Your task to perform on an android device: change notifications settings Image 0: 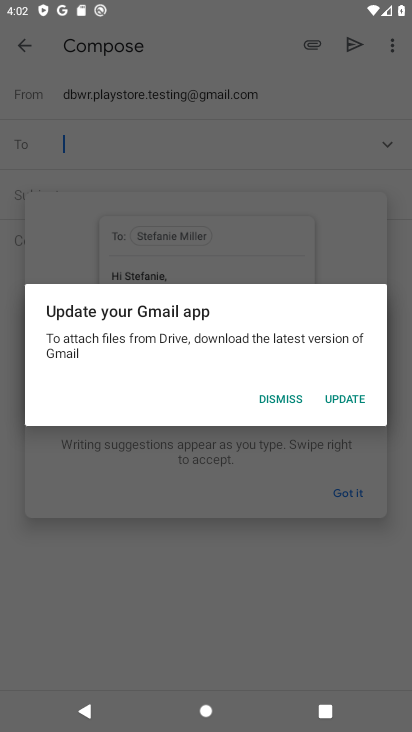
Step 0: press home button
Your task to perform on an android device: change notifications settings Image 1: 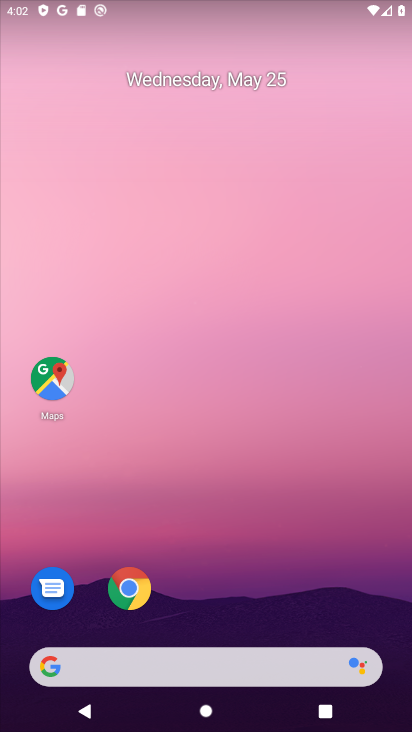
Step 1: drag from (254, 576) to (225, 112)
Your task to perform on an android device: change notifications settings Image 2: 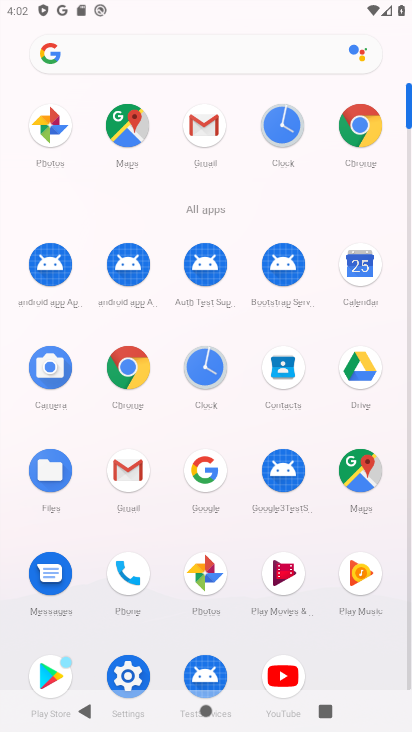
Step 2: click (123, 668)
Your task to perform on an android device: change notifications settings Image 3: 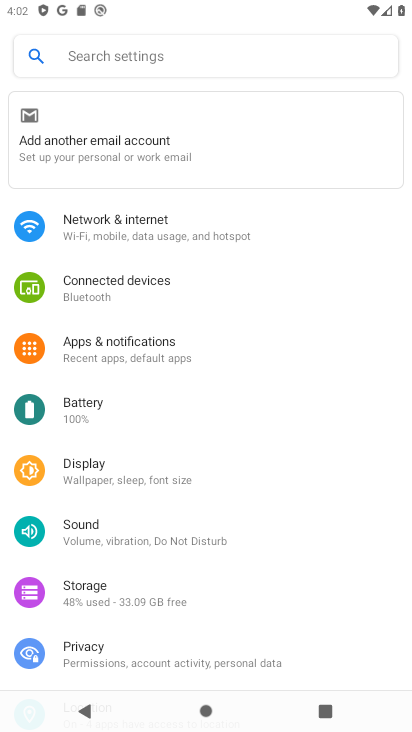
Step 3: click (178, 358)
Your task to perform on an android device: change notifications settings Image 4: 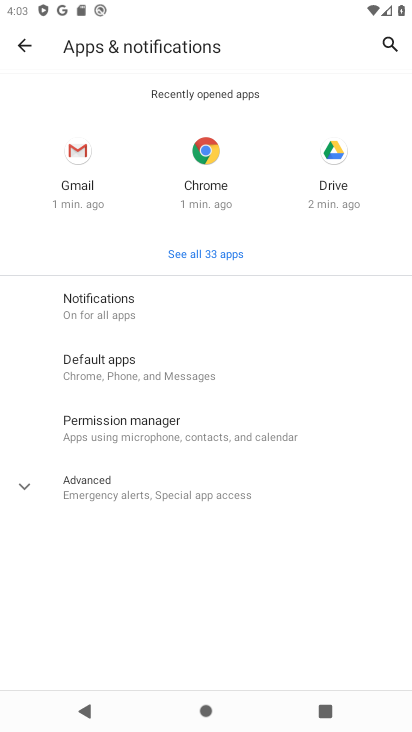
Step 4: click (154, 316)
Your task to perform on an android device: change notifications settings Image 5: 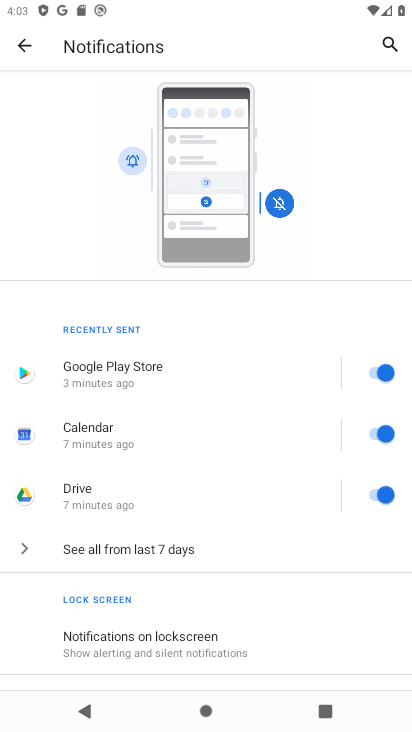
Step 5: drag from (181, 637) to (161, 296)
Your task to perform on an android device: change notifications settings Image 6: 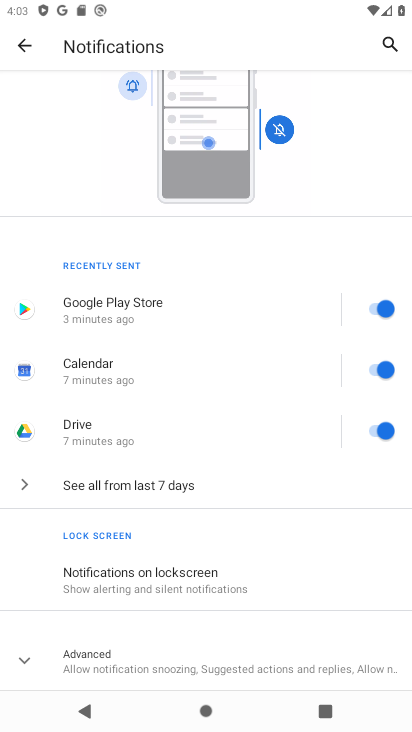
Step 6: click (186, 661)
Your task to perform on an android device: change notifications settings Image 7: 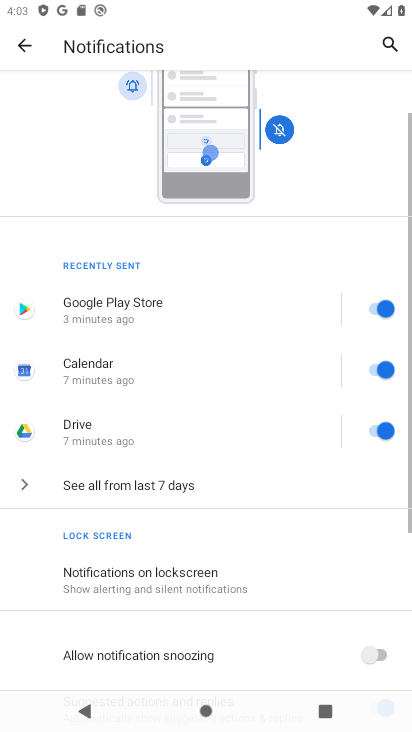
Step 7: drag from (186, 661) to (176, 333)
Your task to perform on an android device: change notifications settings Image 8: 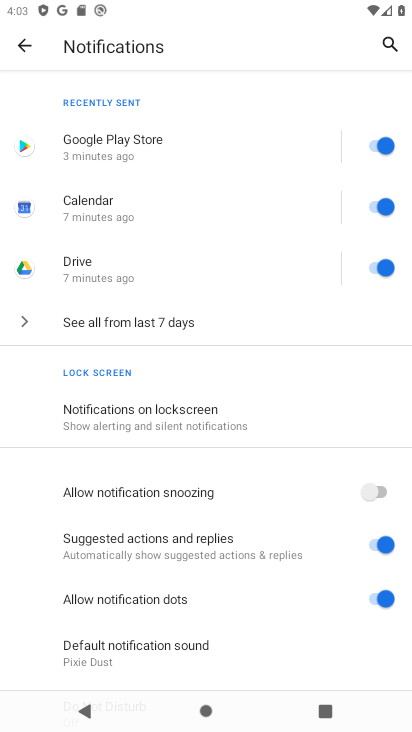
Step 8: click (371, 491)
Your task to perform on an android device: change notifications settings Image 9: 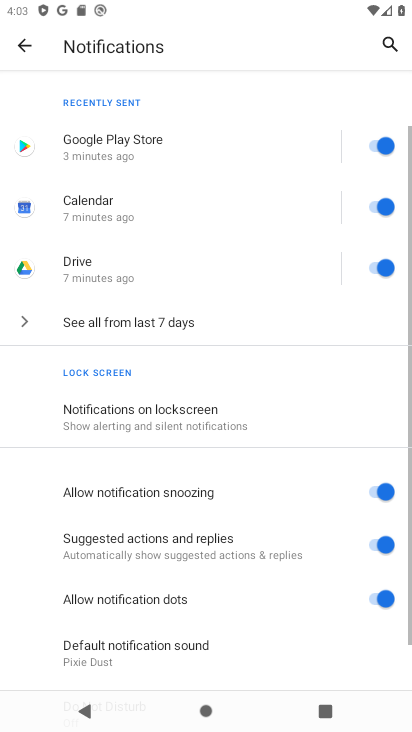
Step 9: click (382, 535)
Your task to perform on an android device: change notifications settings Image 10: 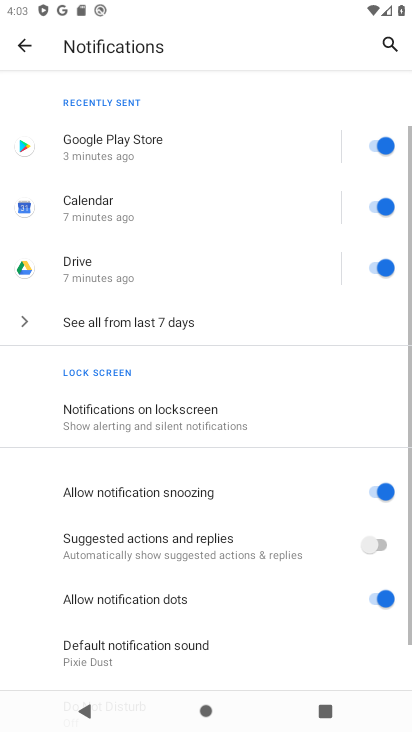
Step 10: click (382, 588)
Your task to perform on an android device: change notifications settings Image 11: 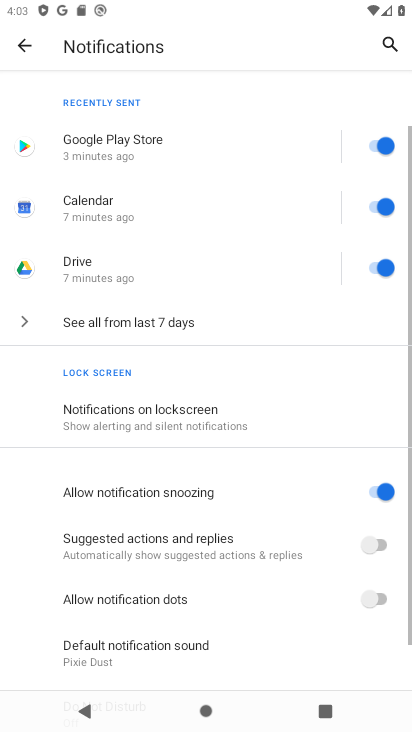
Step 11: task complete